Your task to perform on an android device: set the timer Image 0: 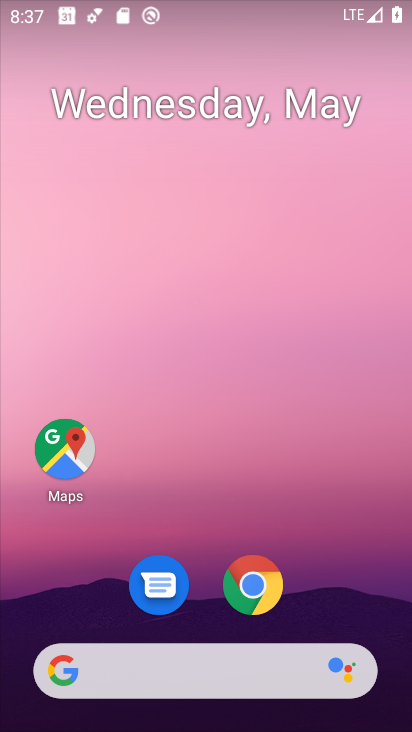
Step 0: drag from (307, 543) to (253, 91)
Your task to perform on an android device: set the timer Image 1: 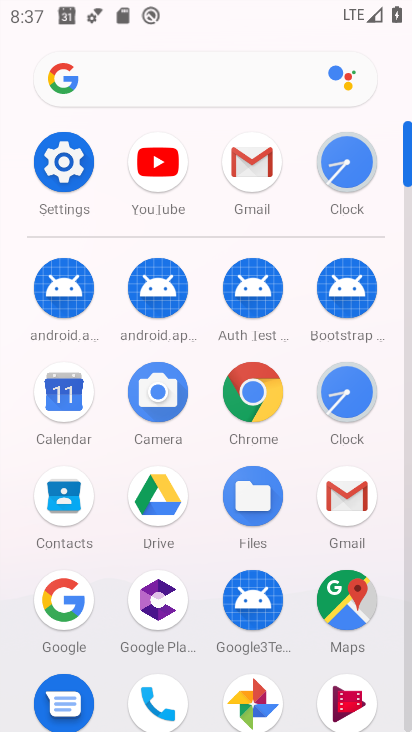
Step 1: click (336, 148)
Your task to perform on an android device: set the timer Image 2: 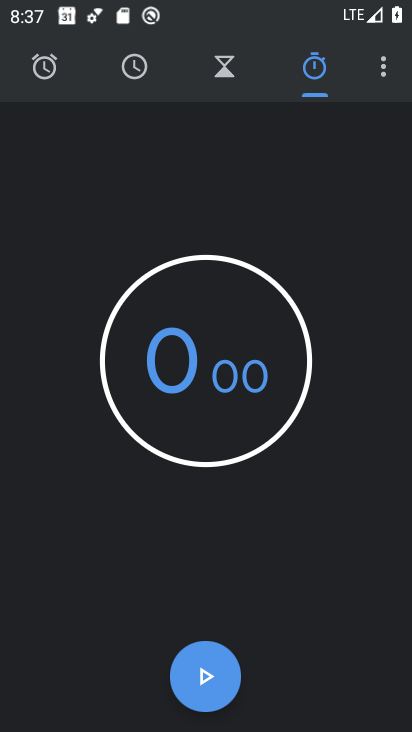
Step 2: click (229, 60)
Your task to perform on an android device: set the timer Image 3: 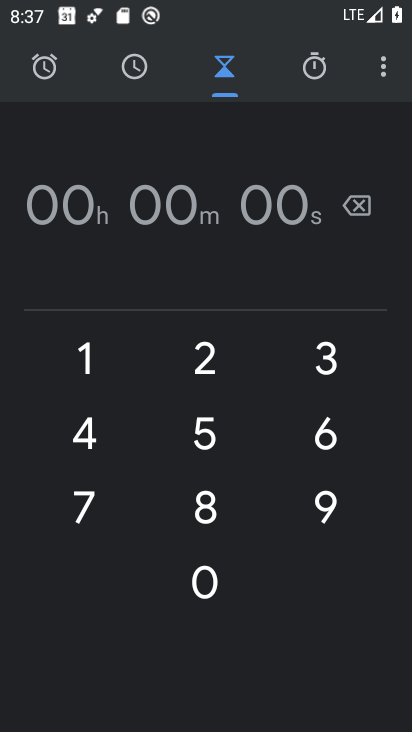
Step 3: click (84, 353)
Your task to perform on an android device: set the timer Image 4: 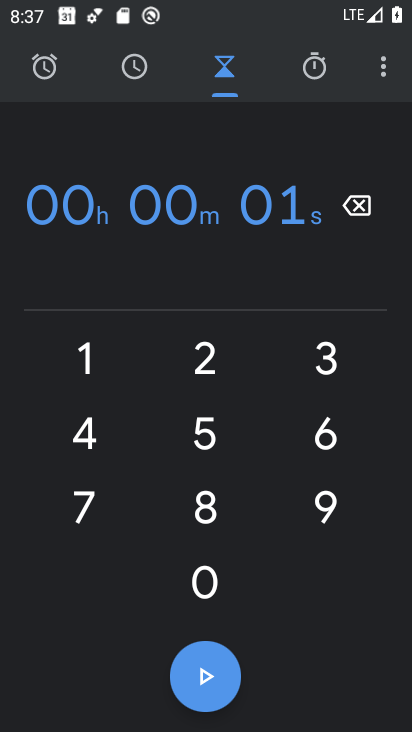
Step 4: click (84, 352)
Your task to perform on an android device: set the timer Image 5: 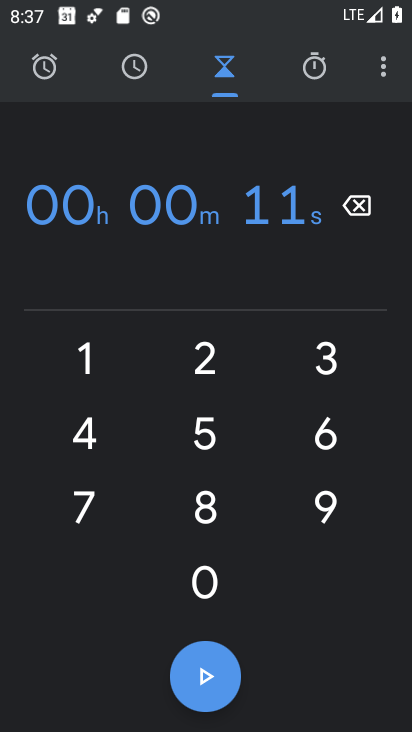
Step 5: task complete